Your task to perform on an android device: add a contact Image 0: 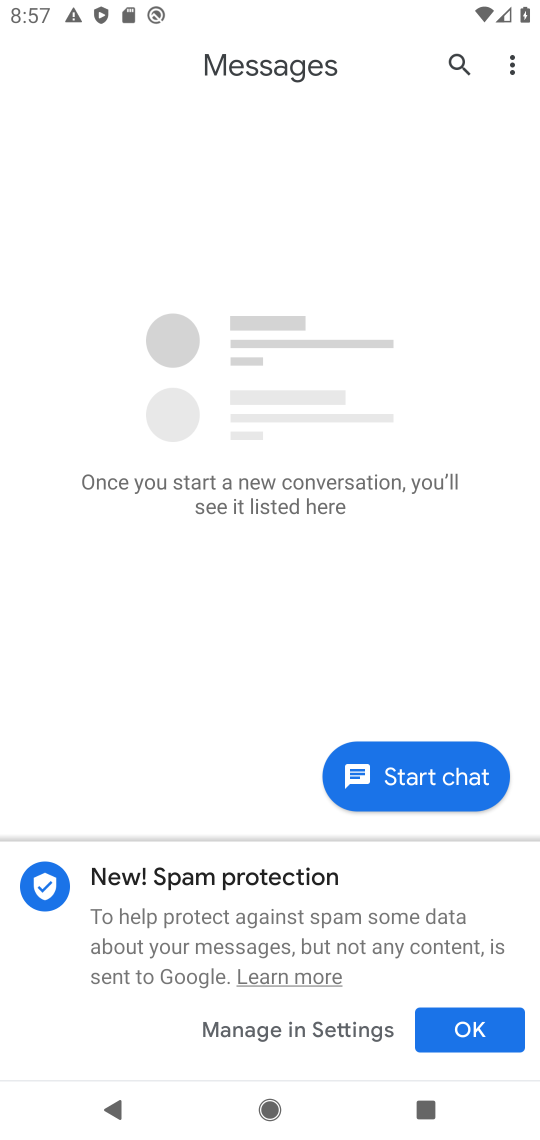
Step 0: press back button
Your task to perform on an android device: add a contact Image 1: 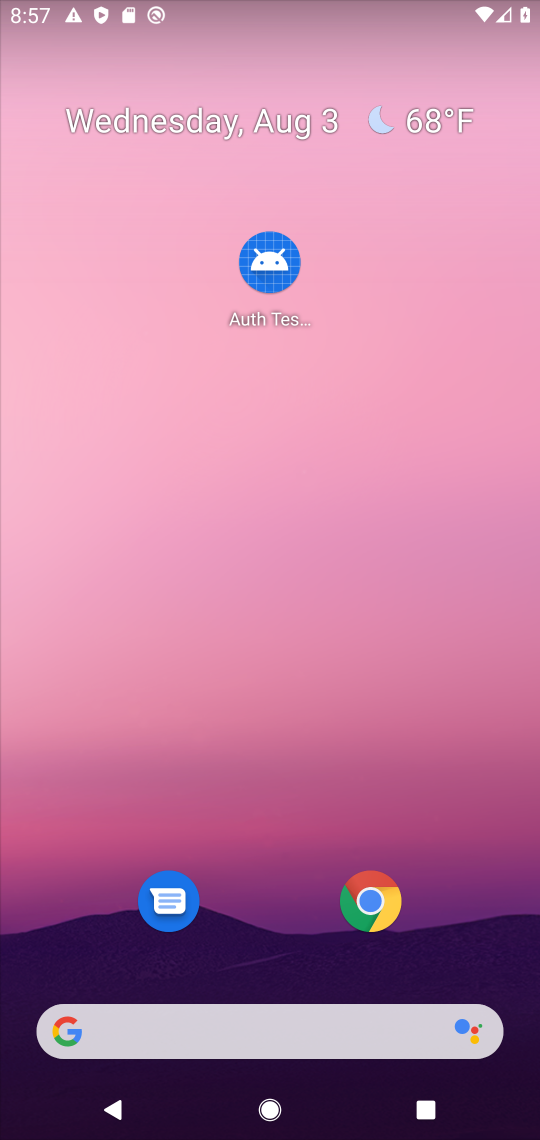
Step 1: drag from (485, 959) to (313, 6)
Your task to perform on an android device: add a contact Image 2: 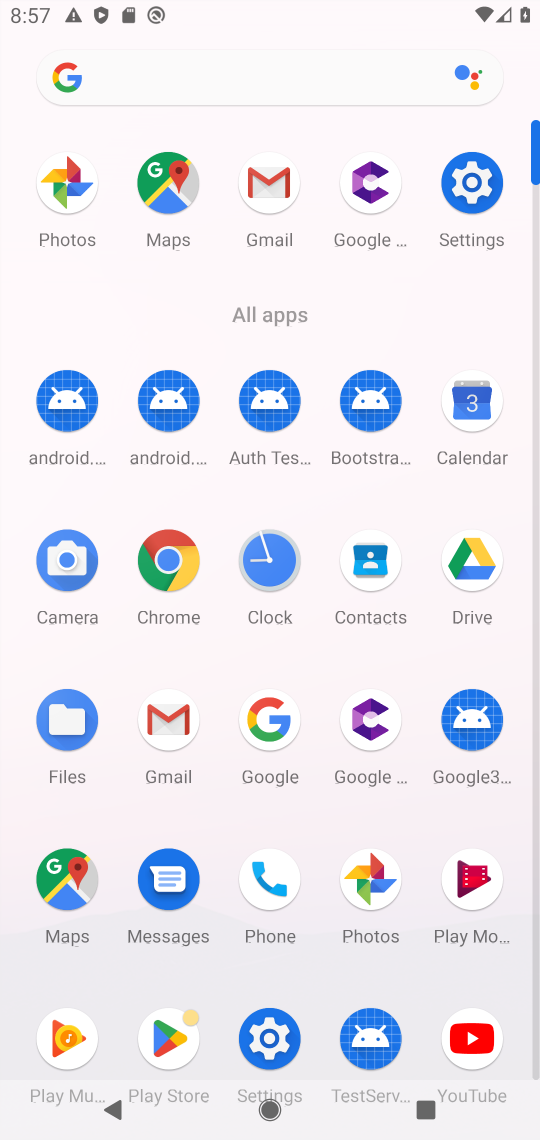
Step 2: click (369, 583)
Your task to perform on an android device: add a contact Image 3: 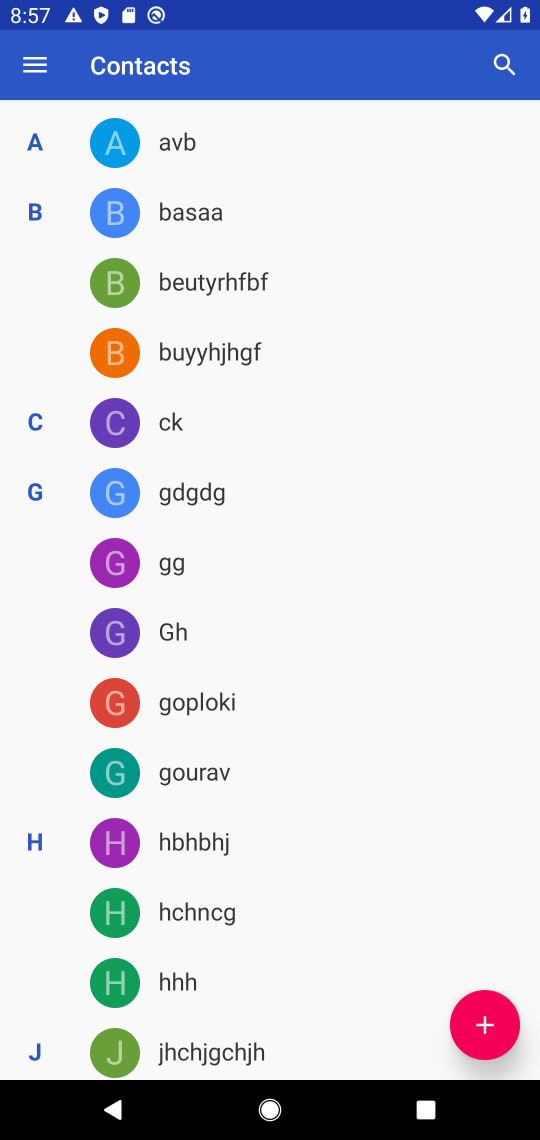
Step 3: click (486, 1022)
Your task to perform on an android device: add a contact Image 4: 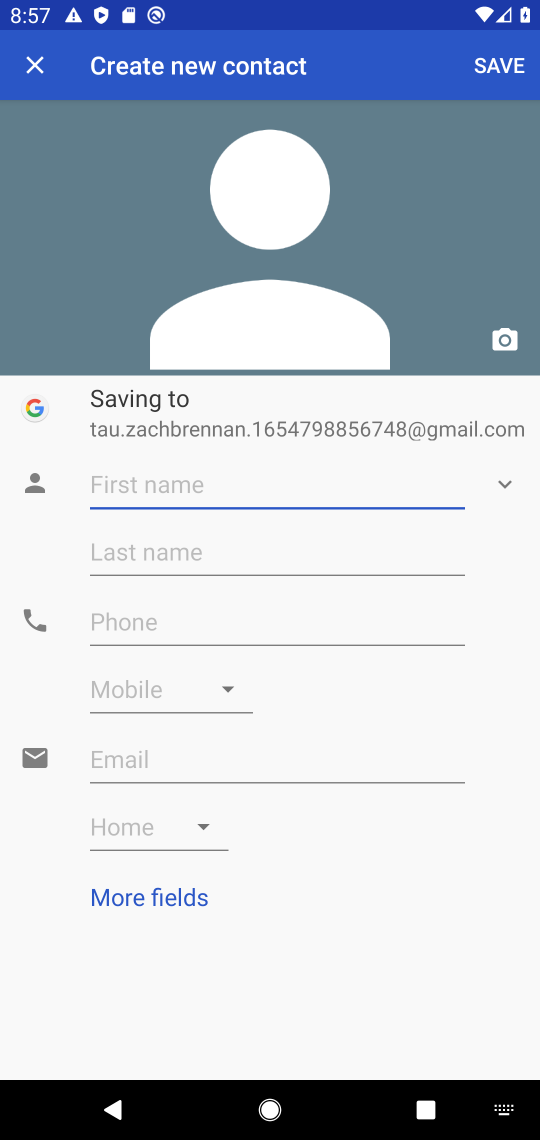
Step 4: type "gjfgfg"
Your task to perform on an android device: add a contact Image 5: 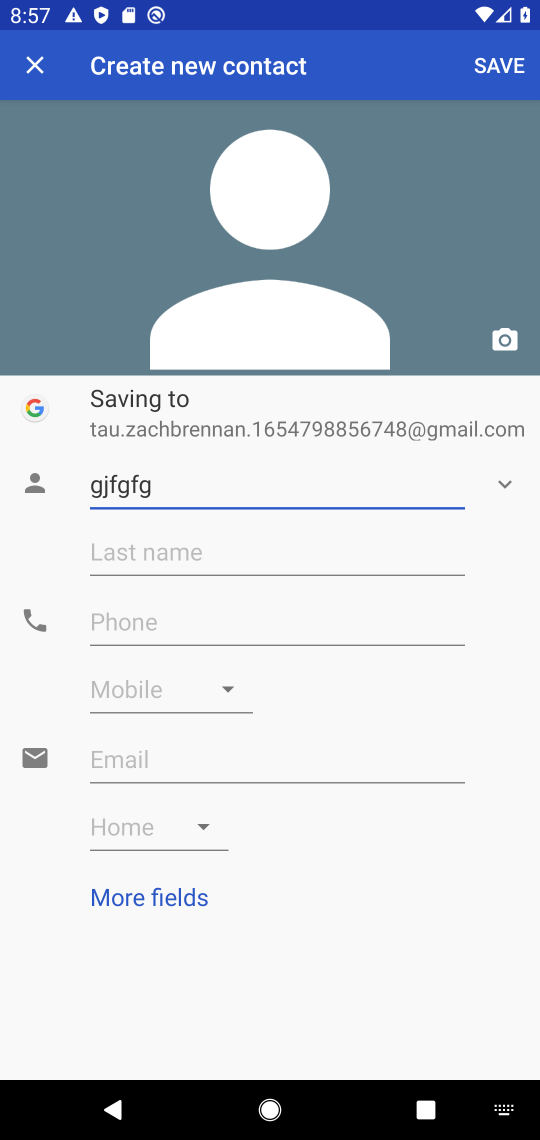
Step 5: click (377, 615)
Your task to perform on an android device: add a contact Image 6: 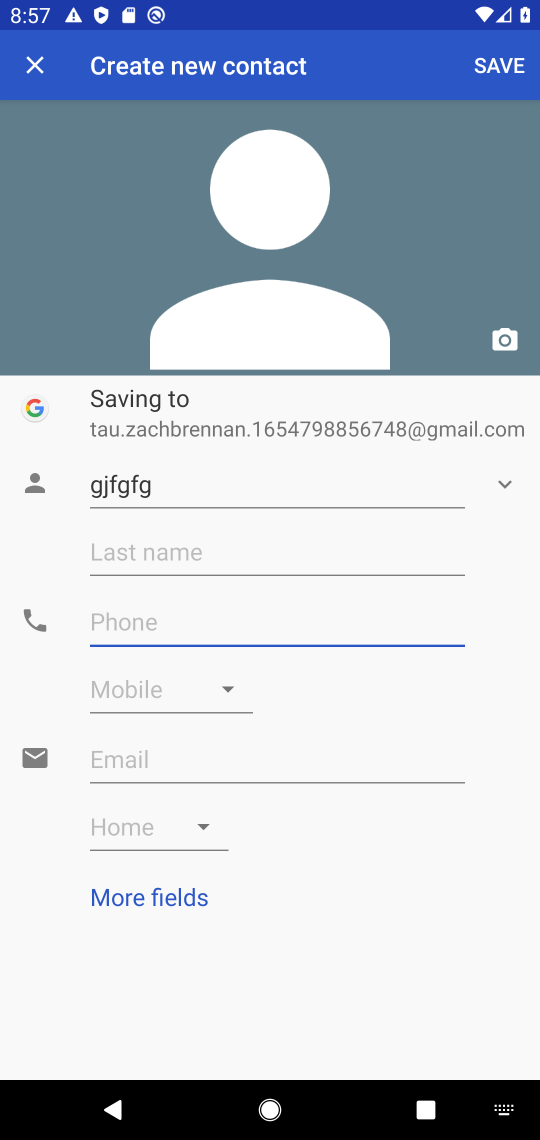
Step 6: type "7887"
Your task to perform on an android device: add a contact Image 7: 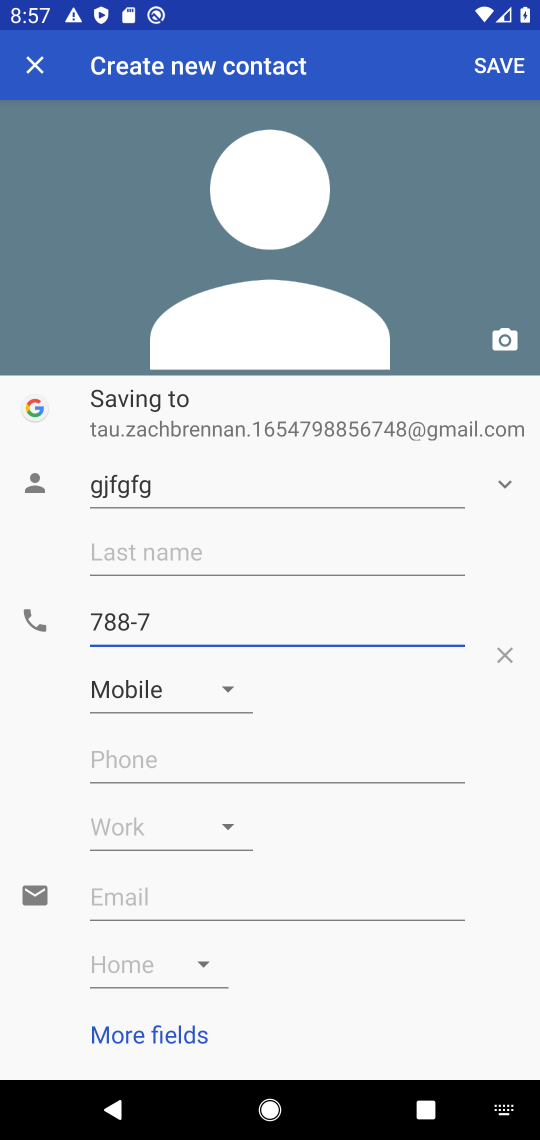
Step 7: click (473, 69)
Your task to perform on an android device: add a contact Image 8: 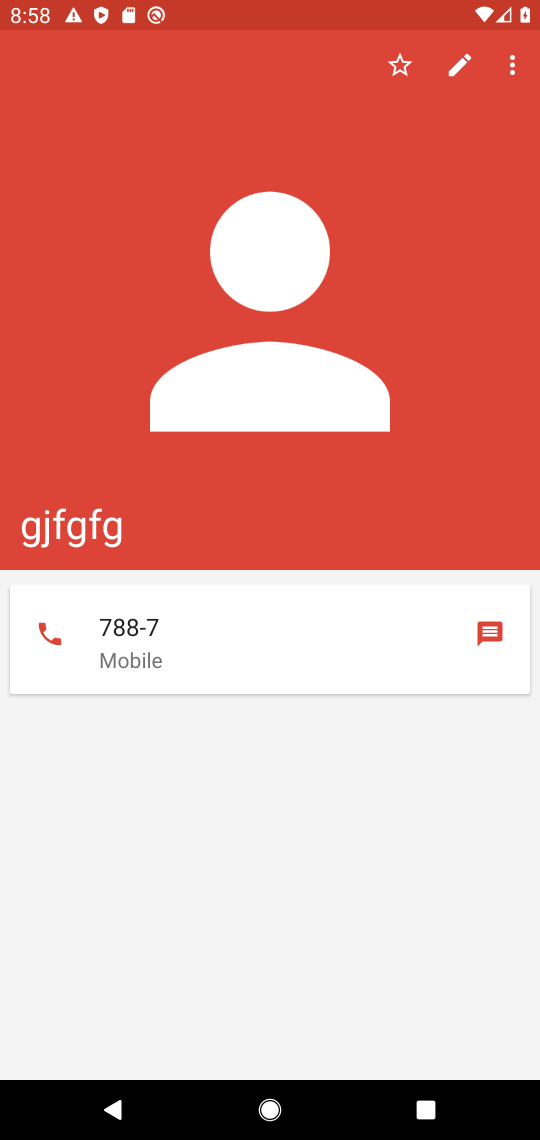
Step 8: task complete